Your task to perform on an android device: Go to ESPN.com Image 0: 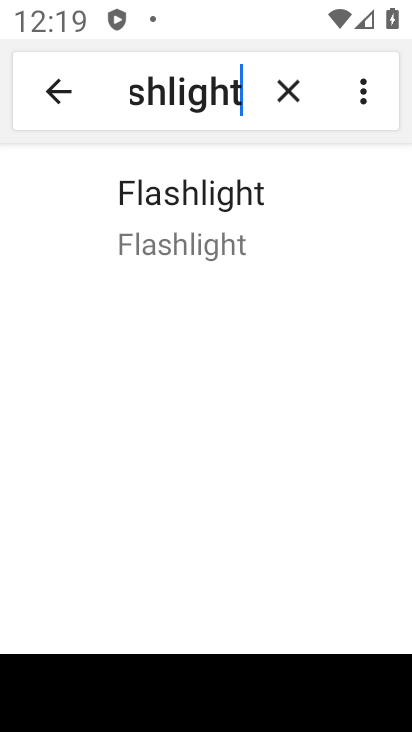
Step 0: press home button
Your task to perform on an android device: Go to ESPN.com Image 1: 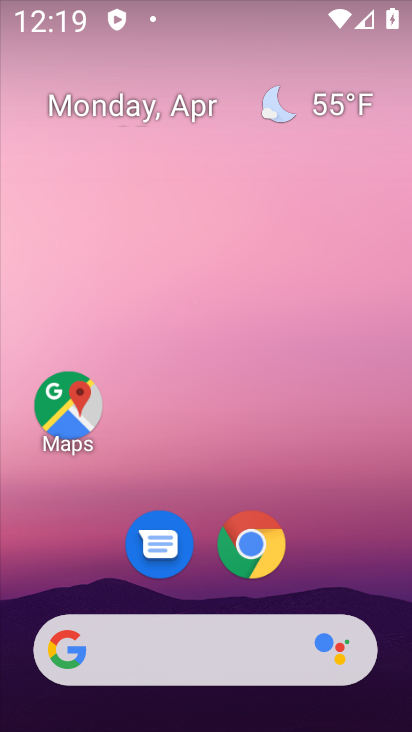
Step 1: click (273, 548)
Your task to perform on an android device: Go to ESPN.com Image 2: 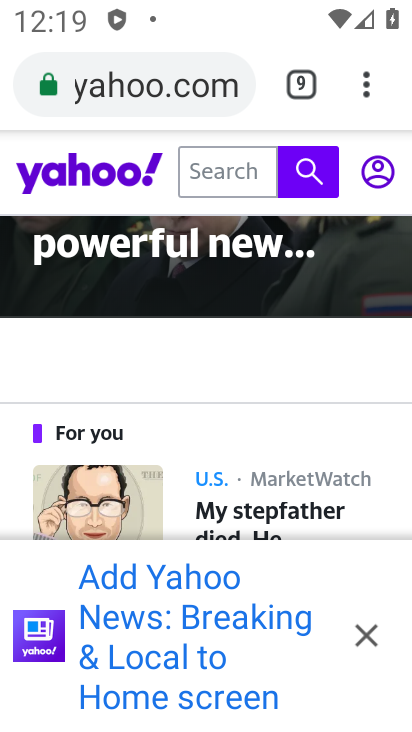
Step 2: click (302, 86)
Your task to perform on an android device: Go to ESPN.com Image 3: 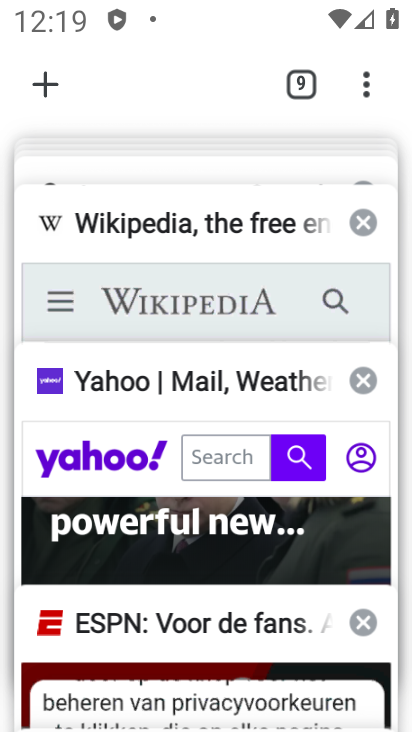
Step 3: click (175, 675)
Your task to perform on an android device: Go to ESPN.com Image 4: 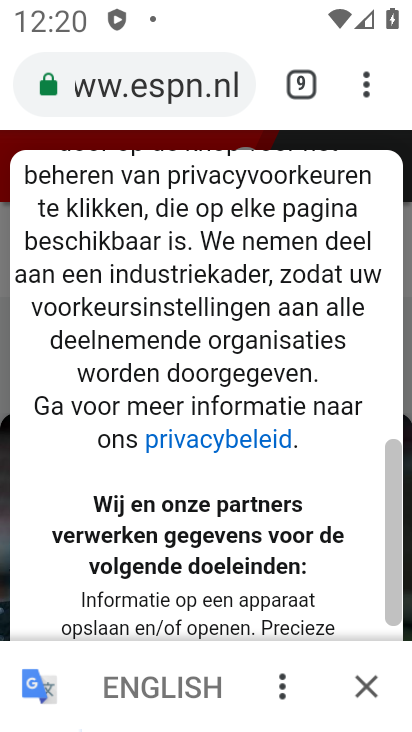
Step 4: task complete